Your task to perform on an android device: toggle notifications settings in the gmail app Image 0: 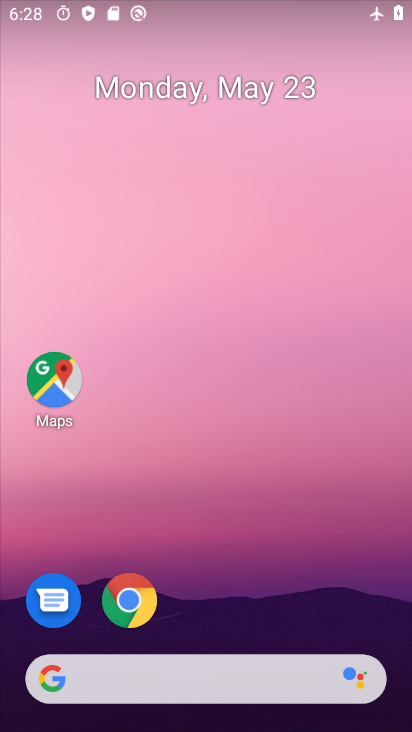
Step 0: drag from (260, 591) to (295, 83)
Your task to perform on an android device: toggle notifications settings in the gmail app Image 1: 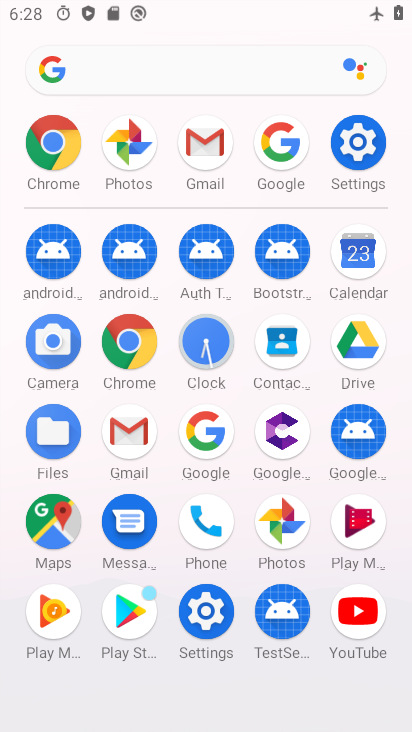
Step 1: click (365, 148)
Your task to perform on an android device: toggle notifications settings in the gmail app Image 2: 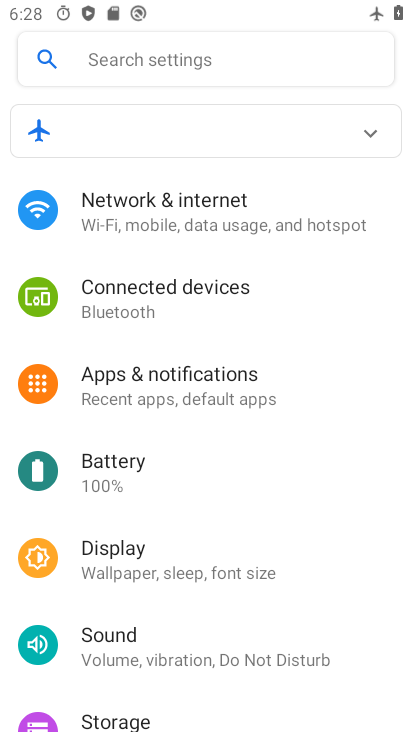
Step 2: drag from (221, 658) to (213, 351)
Your task to perform on an android device: toggle notifications settings in the gmail app Image 3: 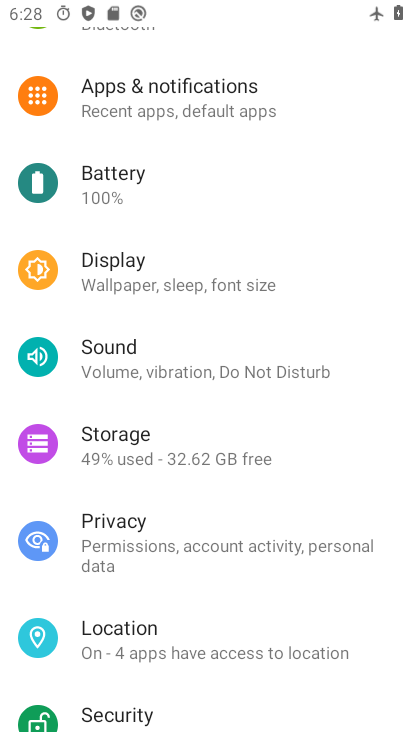
Step 3: press home button
Your task to perform on an android device: toggle notifications settings in the gmail app Image 4: 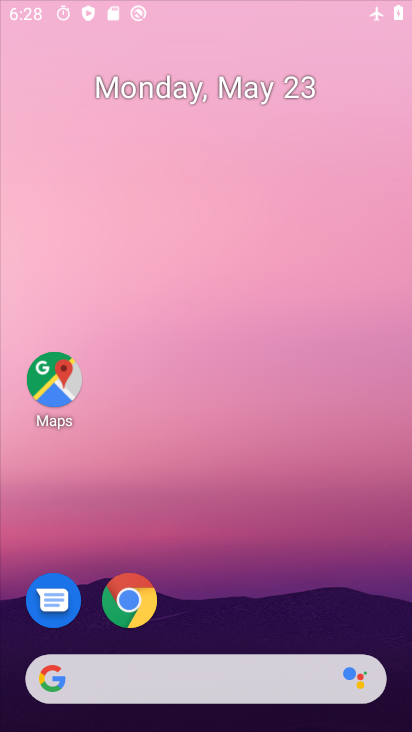
Step 4: drag from (258, 539) to (246, 154)
Your task to perform on an android device: toggle notifications settings in the gmail app Image 5: 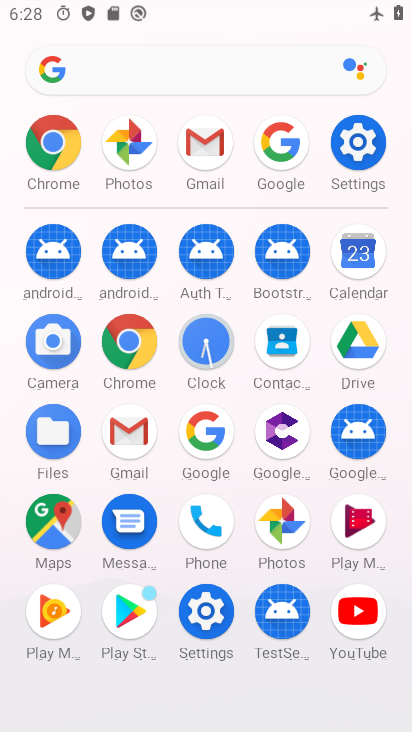
Step 5: click (133, 434)
Your task to perform on an android device: toggle notifications settings in the gmail app Image 6: 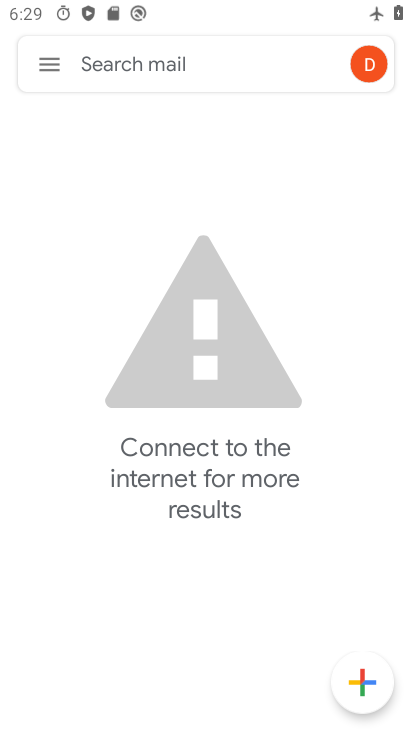
Step 6: click (29, 71)
Your task to perform on an android device: toggle notifications settings in the gmail app Image 7: 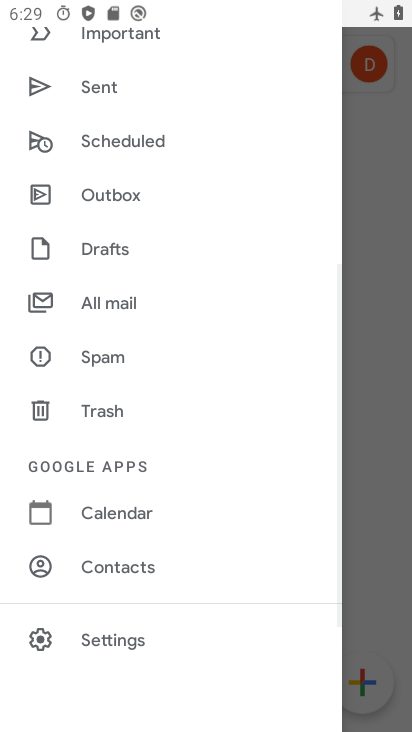
Step 7: click (96, 645)
Your task to perform on an android device: toggle notifications settings in the gmail app Image 8: 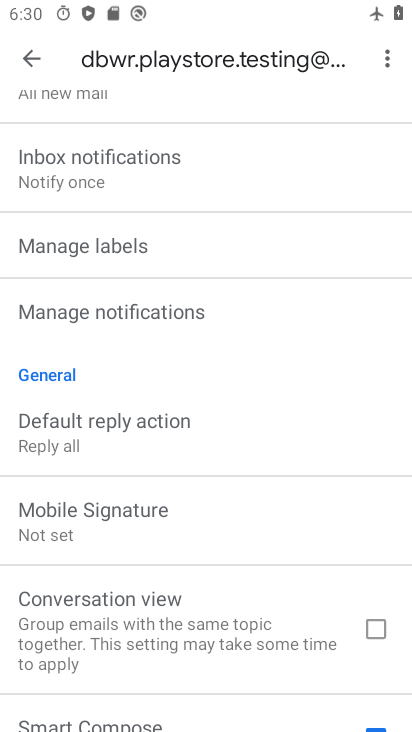
Step 8: click (199, 327)
Your task to perform on an android device: toggle notifications settings in the gmail app Image 9: 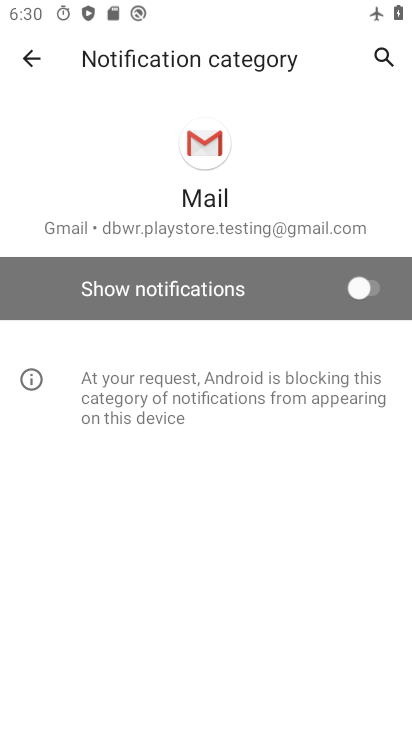
Step 9: click (344, 298)
Your task to perform on an android device: toggle notifications settings in the gmail app Image 10: 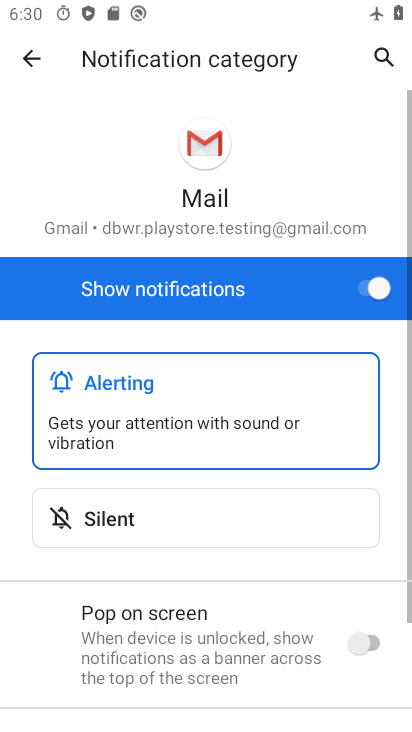
Step 10: task complete